Your task to perform on an android device: Check the weather Image 0: 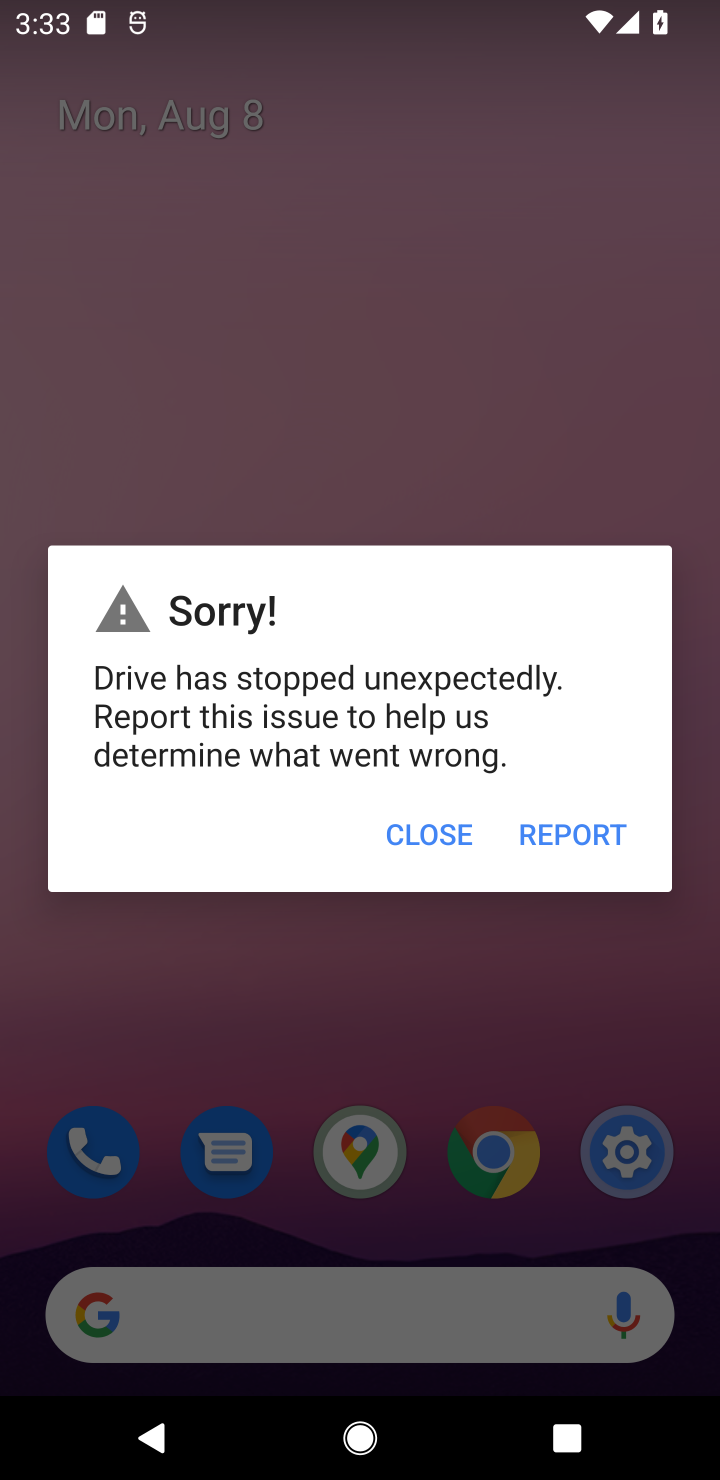
Step 0: click (457, 851)
Your task to perform on an android device: Check the weather Image 1: 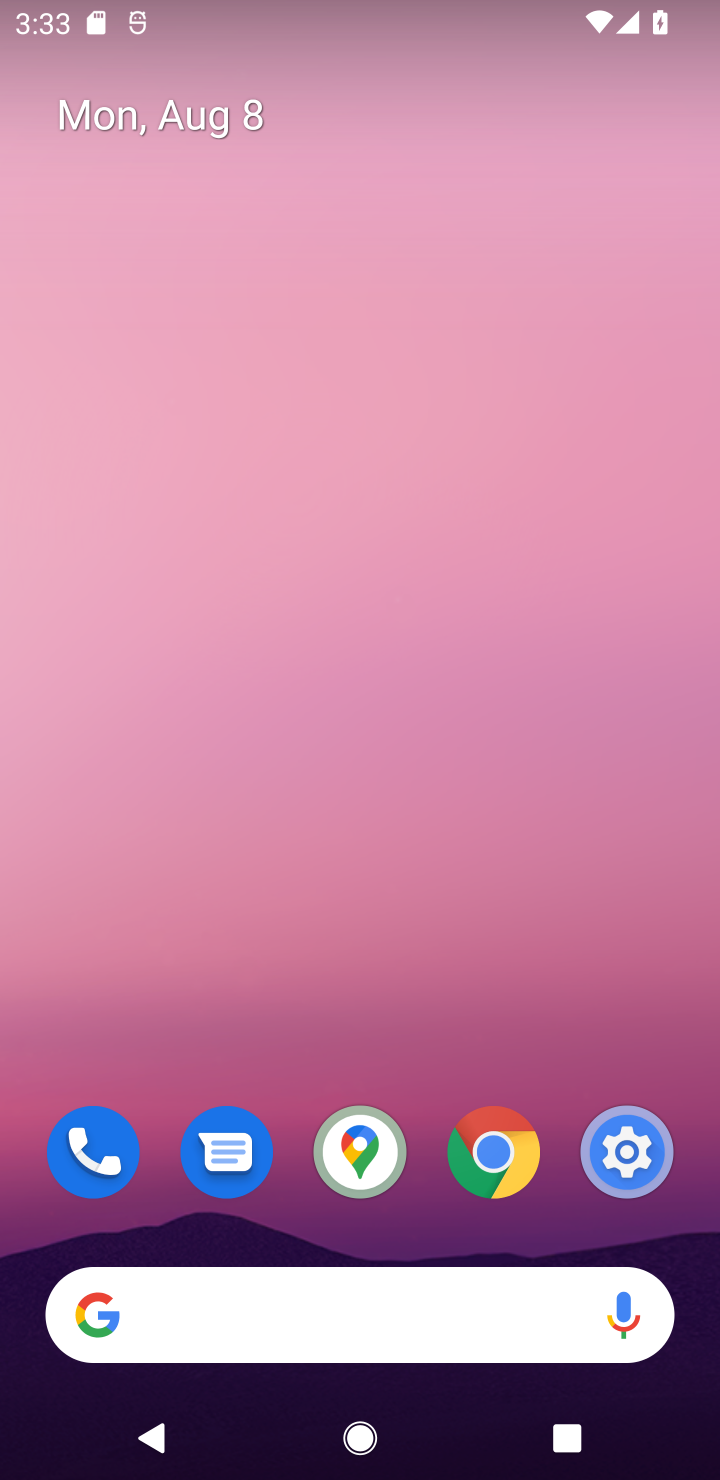
Step 1: click (252, 1290)
Your task to perform on an android device: Check the weather Image 2: 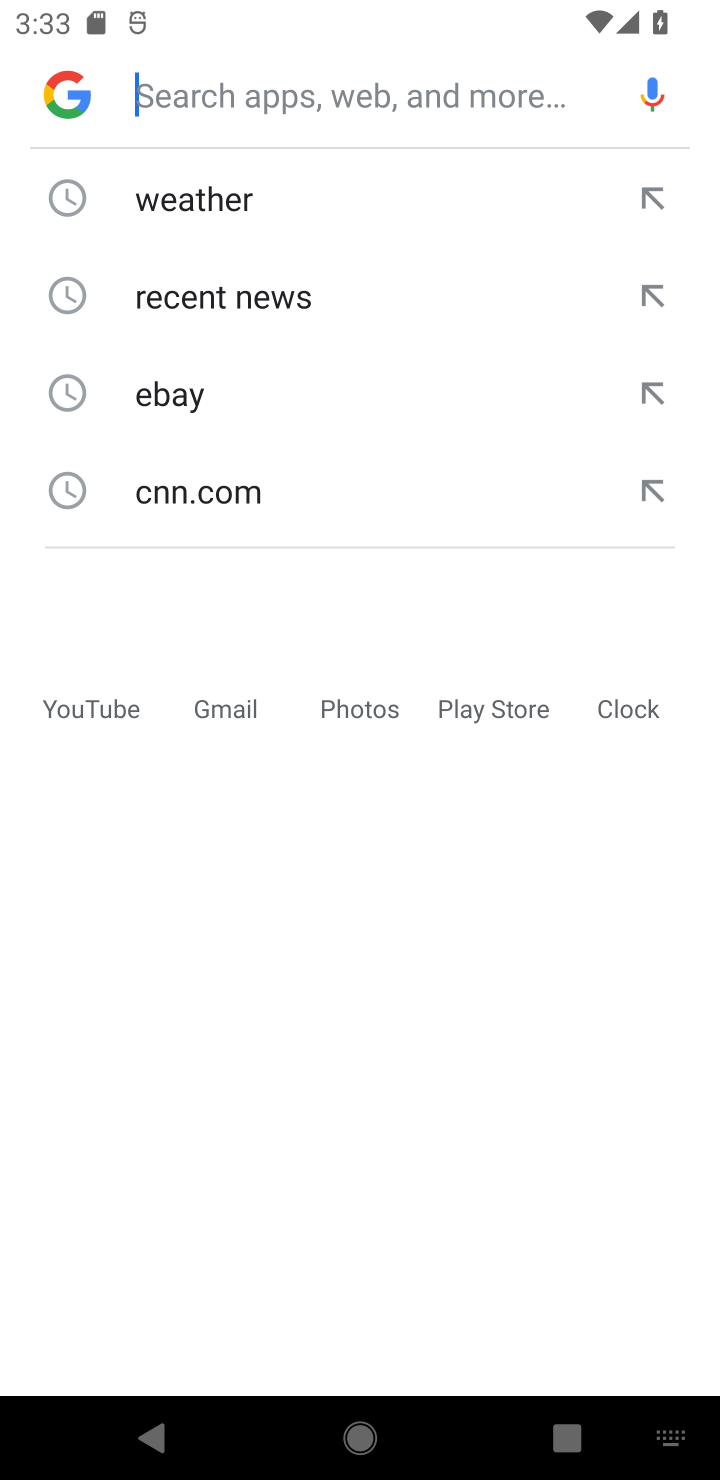
Step 2: click (197, 83)
Your task to perform on an android device: Check the weather Image 3: 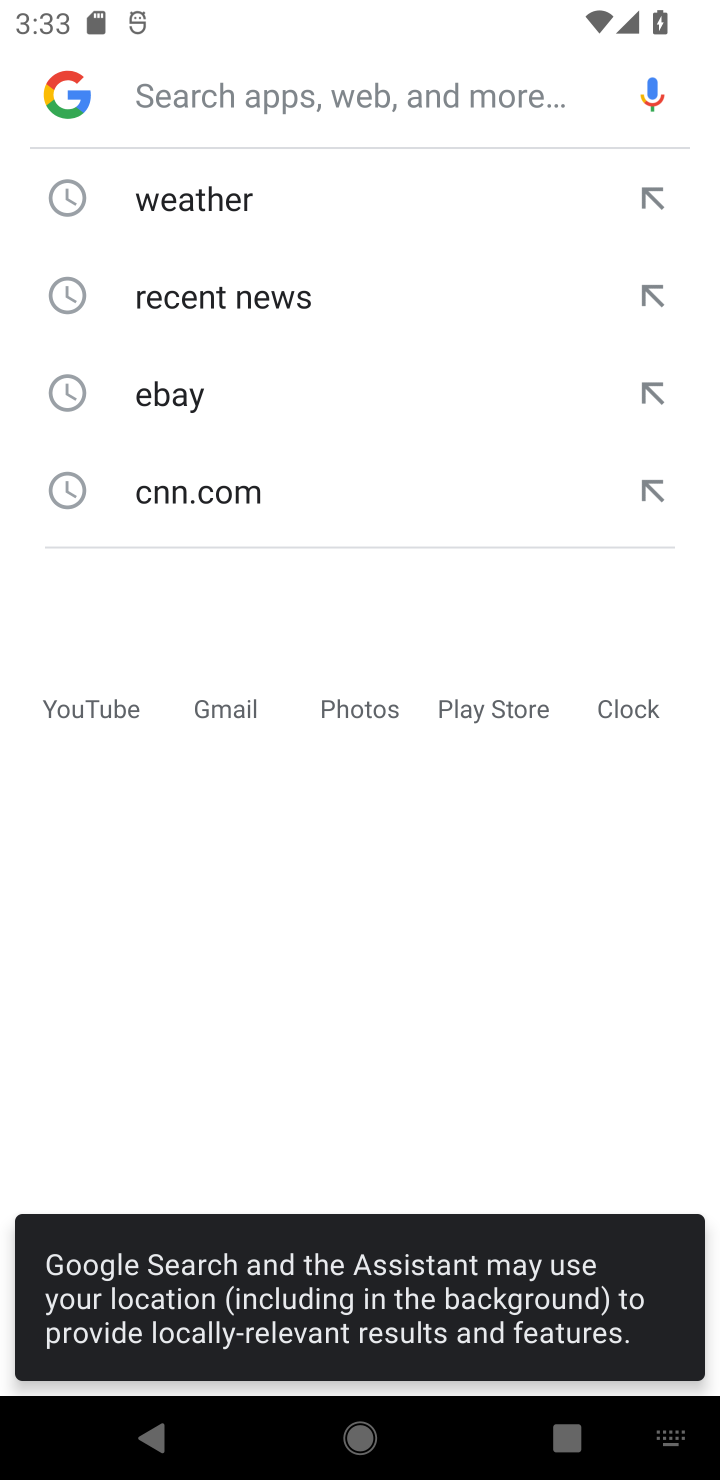
Step 3: click (315, 198)
Your task to perform on an android device: Check the weather Image 4: 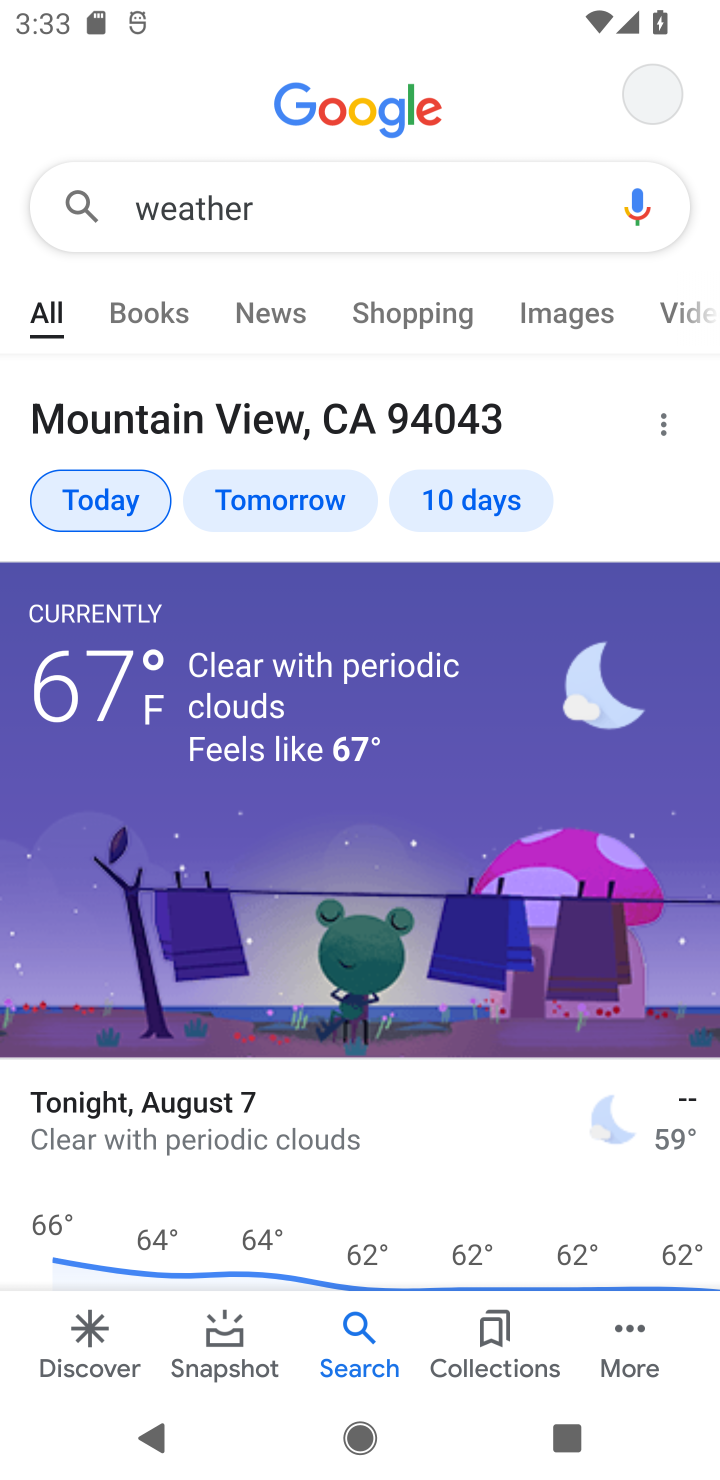
Step 4: task complete